Your task to perform on an android device: toggle notification dots Image 0: 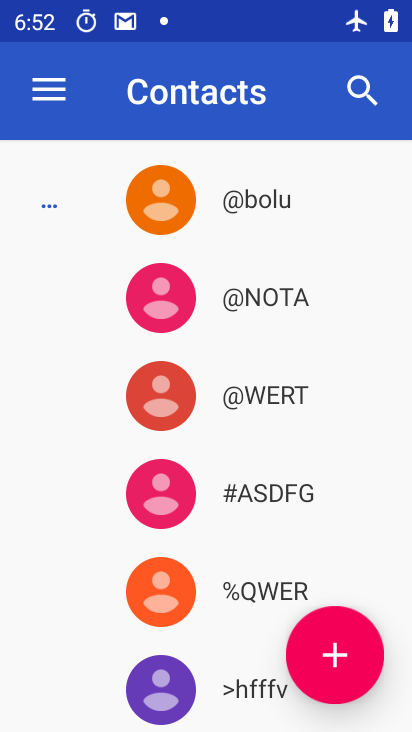
Step 0: press home button
Your task to perform on an android device: toggle notification dots Image 1: 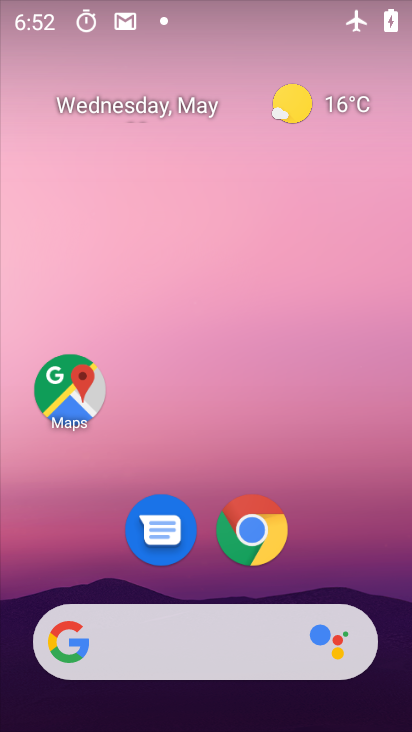
Step 1: drag from (172, 595) to (242, 228)
Your task to perform on an android device: toggle notification dots Image 2: 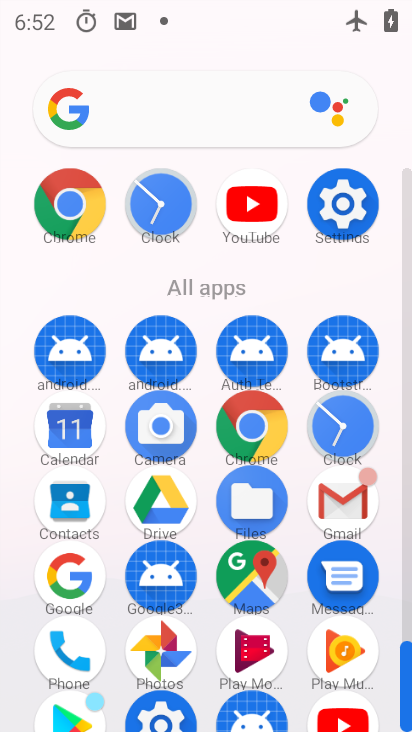
Step 2: click (332, 203)
Your task to perform on an android device: toggle notification dots Image 3: 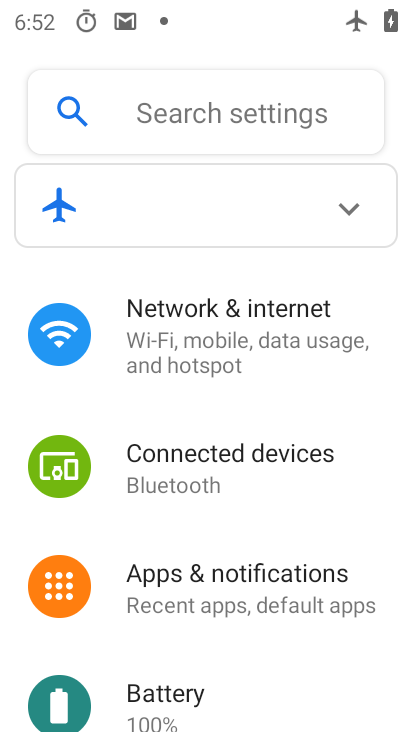
Step 3: click (267, 591)
Your task to perform on an android device: toggle notification dots Image 4: 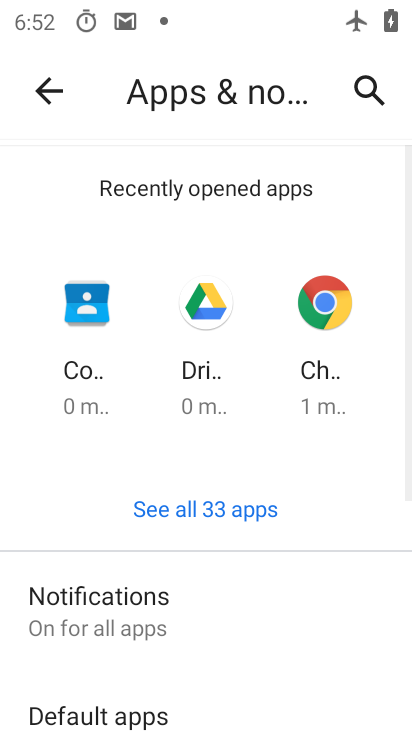
Step 4: click (134, 597)
Your task to perform on an android device: toggle notification dots Image 5: 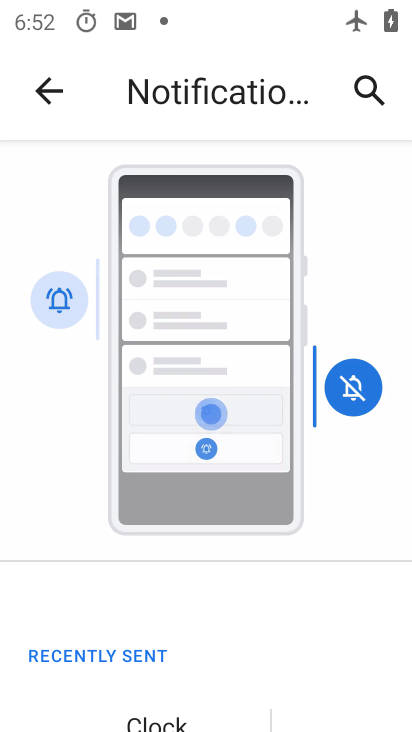
Step 5: drag from (149, 674) to (251, 393)
Your task to perform on an android device: toggle notification dots Image 6: 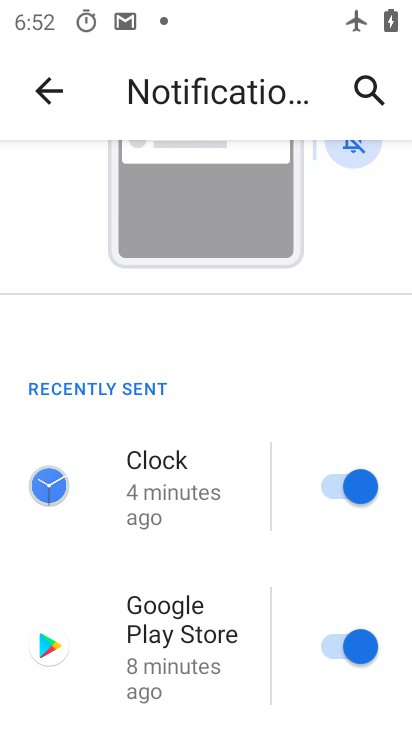
Step 6: drag from (269, 636) to (384, 317)
Your task to perform on an android device: toggle notification dots Image 7: 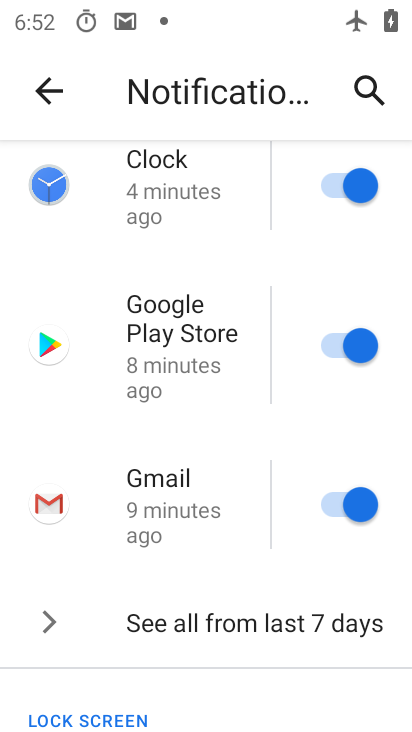
Step 7: drag from (67, 731) to (204, 427)
Your task to perform on an android device: toggle notification dots Image 8: 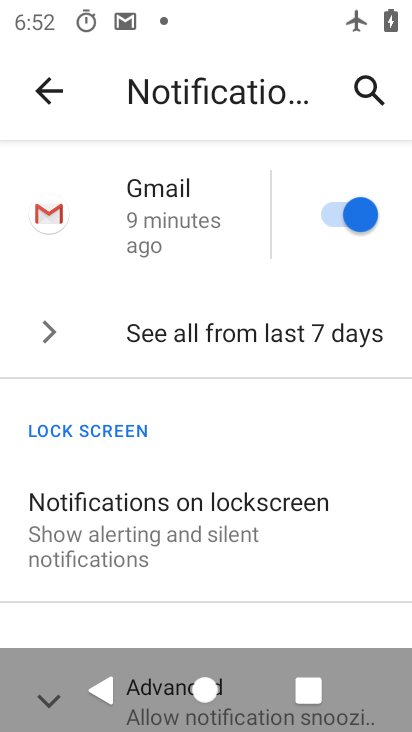
Step 8: drag from (190, 620) to (317, 325)
Your task to perform on an android device: toggle notification dots Image 9: 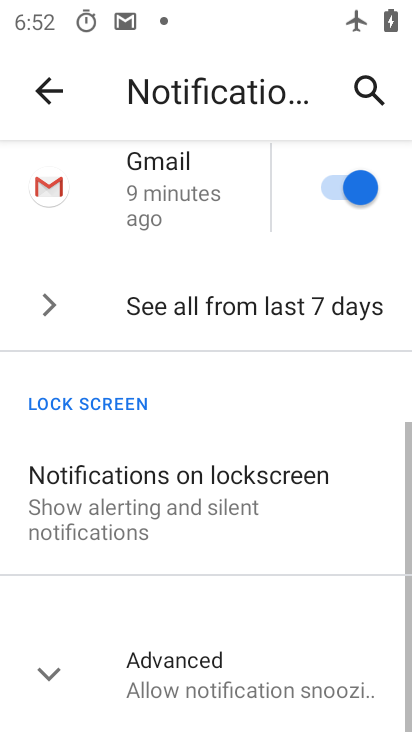
Step 9: click (40, 690)
Your task to perform on an android device: toggle notification dots Image 10: 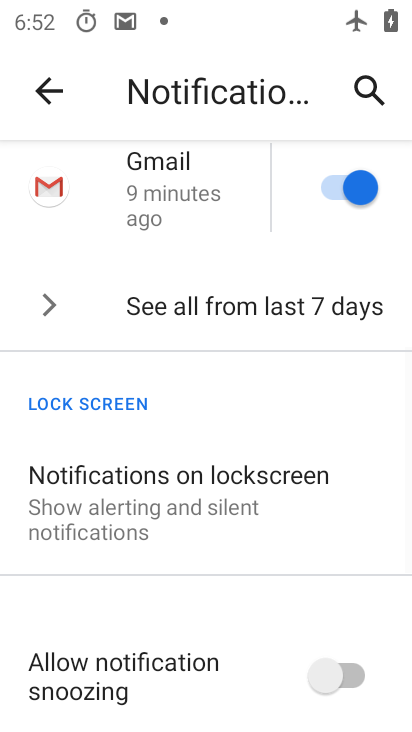
Step 10: drag from (199, 687) to (280, 368)
Your task to perform on an android device: toggle notification dots Image 11: 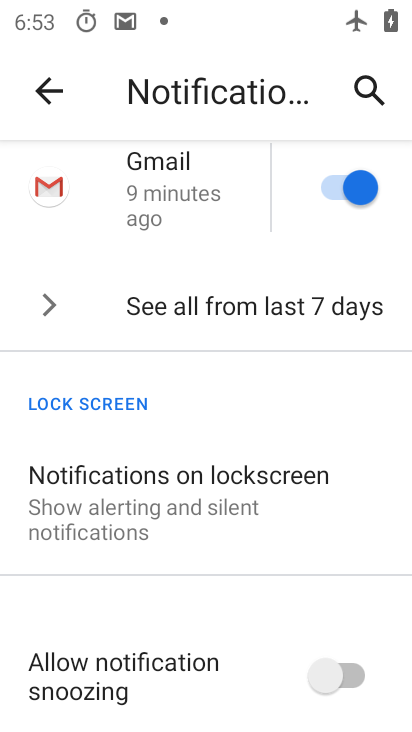
Step 11: drag from (255, 644) to (303, 390)
Your task to perform on an android device: toggle notification dots Image 12: 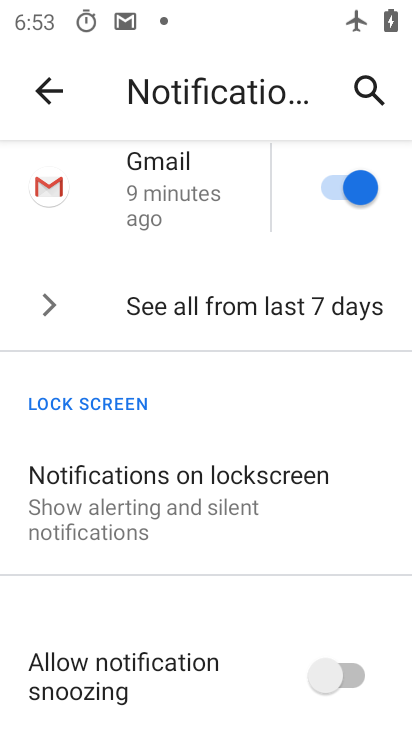
Step 12: drag from (180, 594) to (213, 433)
Your task to perform on an android device: toggle notification dots Image 13: 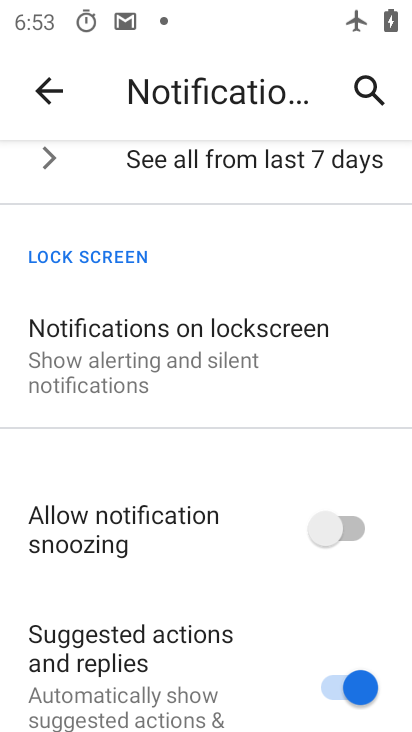
Step 13: drag from (243, 676) to (260, 371)
Your task to perform on an android device: toggle notification dots Image 14: 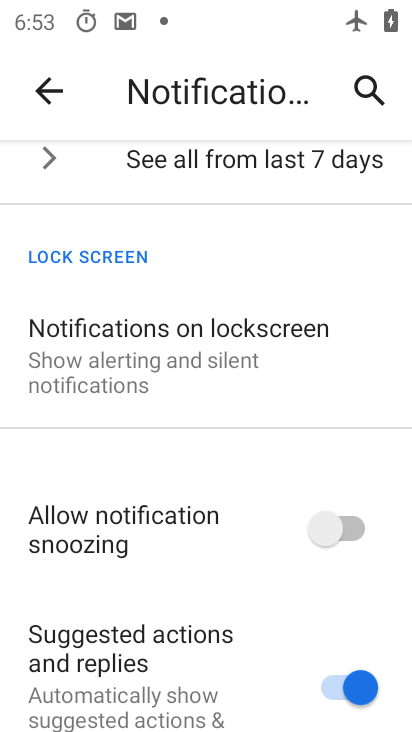
Step 14: drag from (270, 717) to (303, 312)
Your task to perform on an android device: toggle notification dots Image 15: 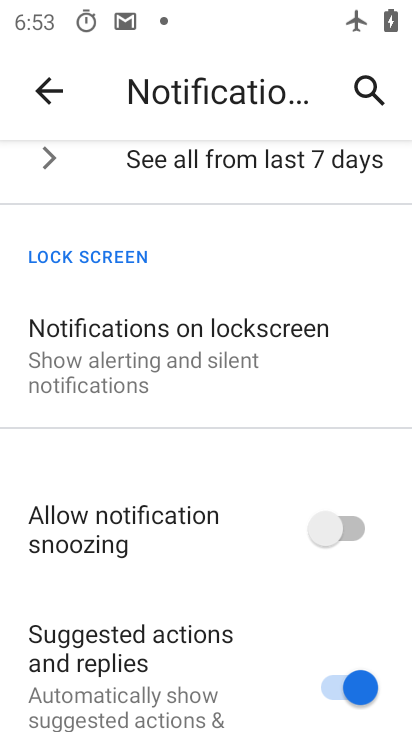
Step 15: drag from (265, 596) to (266, 314)
Your task to perform on an android device: toggle notification dots Image 16: 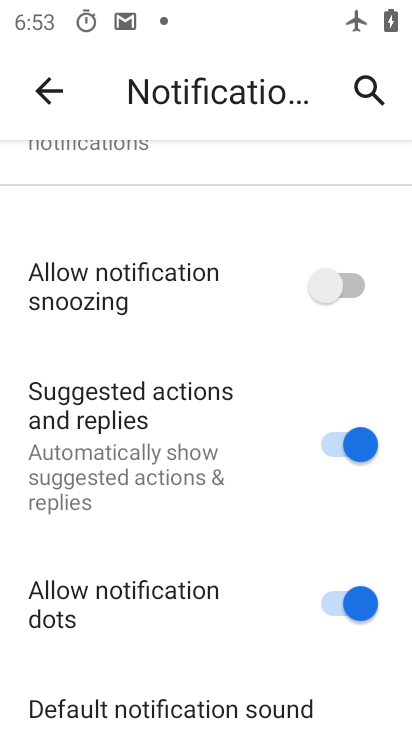
Step 16: click (336, 615)
Your task to perform on an android device: toggle notification dots Image 17: 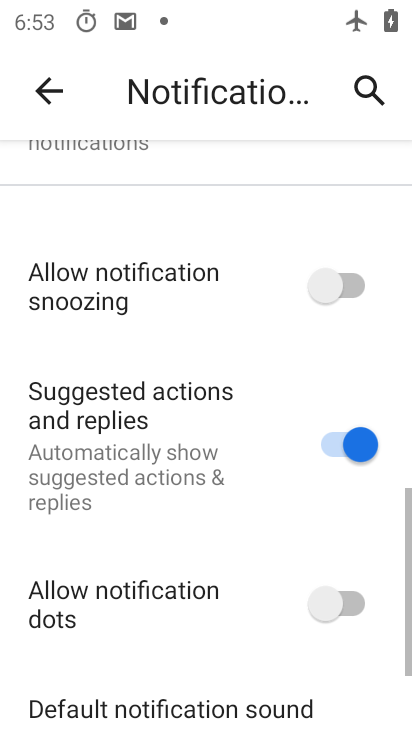
Step 17: task complete